Your task to perform on an android device: Open Chrome and go to settings Image 0: 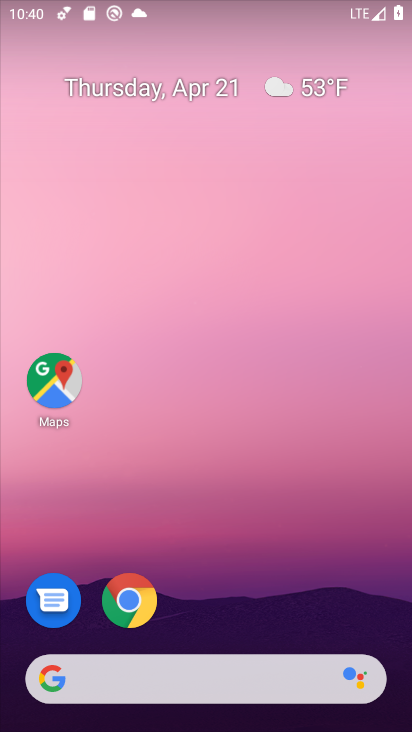
Step 0: click (138, 600)
Your task to perform on an android device: Open Chrome and go to settings Image 1: 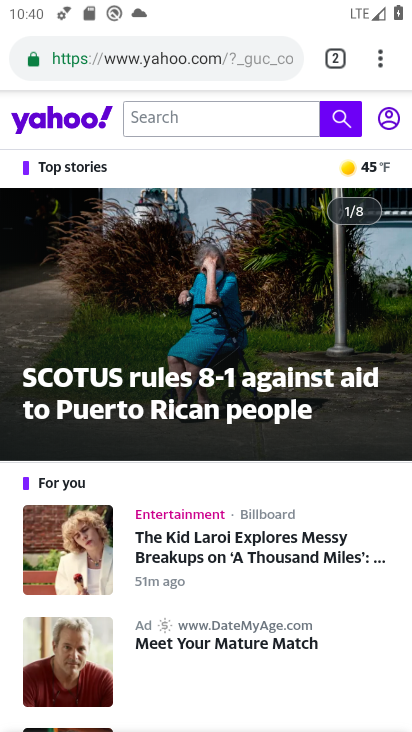
Step 1: click (381, 54)
Your task to perform on an android device: Open Chrome and go to settings Image 2: 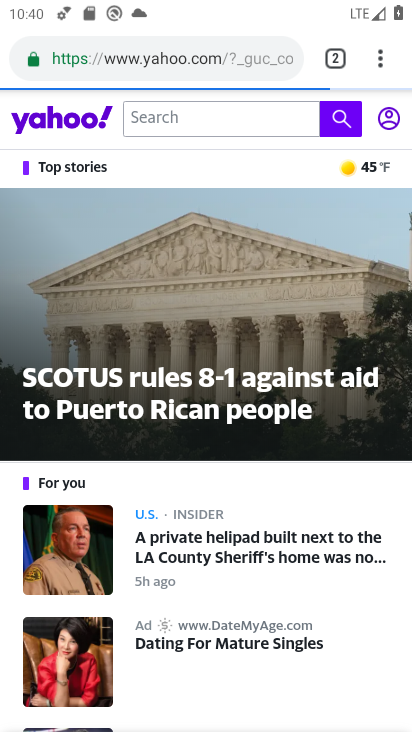
Step 2: click (381, 54)
Your task to perform on an android device: Open Chrome and go to settings Image 3: 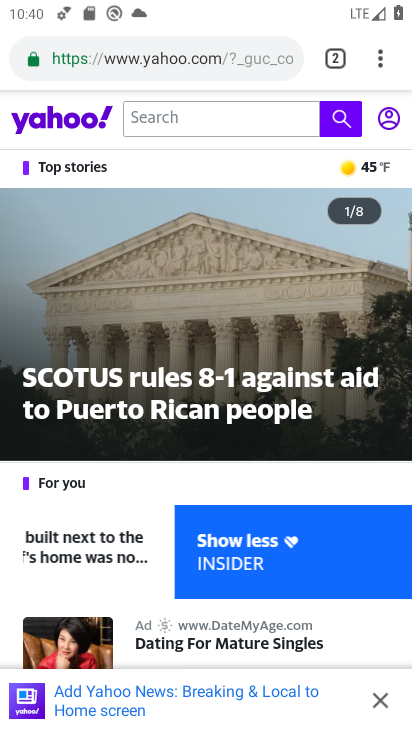
Step 3: click (379, 55)
Your task to perform on an android device: Open Chrome and go to settings Image 4: 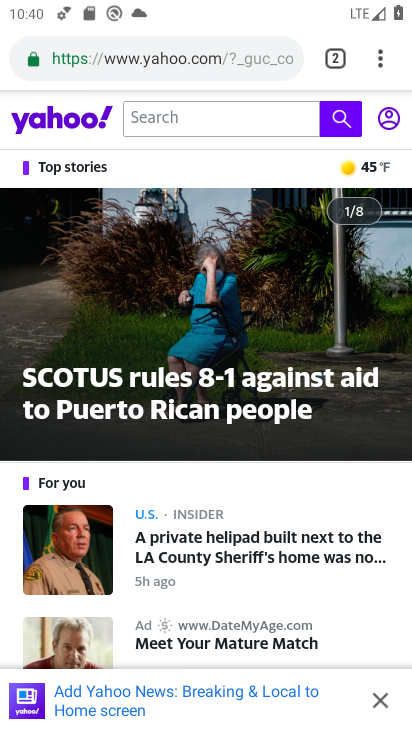
Step 4: click (376, 60)
Your task to perform on an android device: Open Chrome and go to settings Image 5: 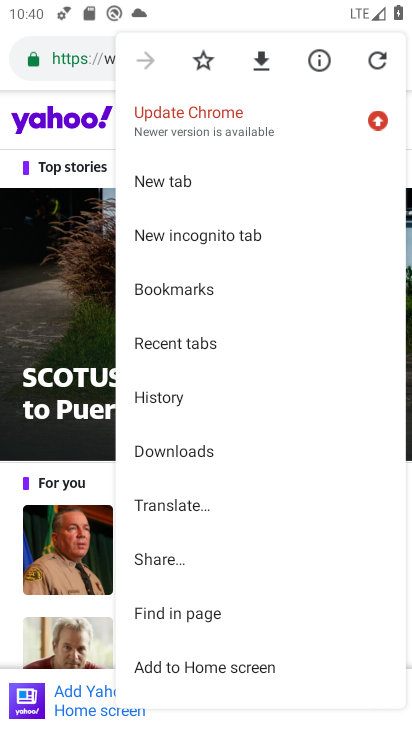
Step 5: drag from (258, 619) to (270, 200)
Your task to perform on an android device: Open Chrome and go to settings Image 6: 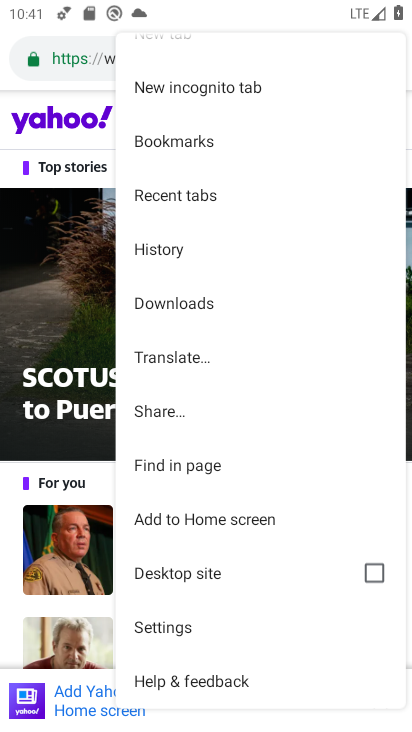
Step 6: click (209, 622)
Your task to perform on an android device: Open Chrome and go to settings Image 7: 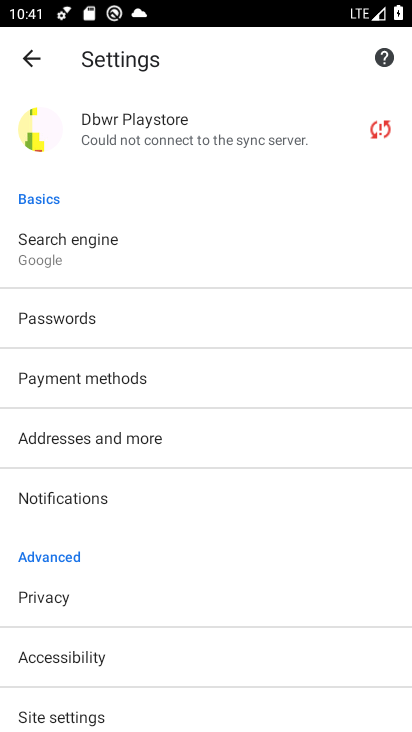
Step 7: task complete